Your task to perform on an android device: Open Amazon Image 0: 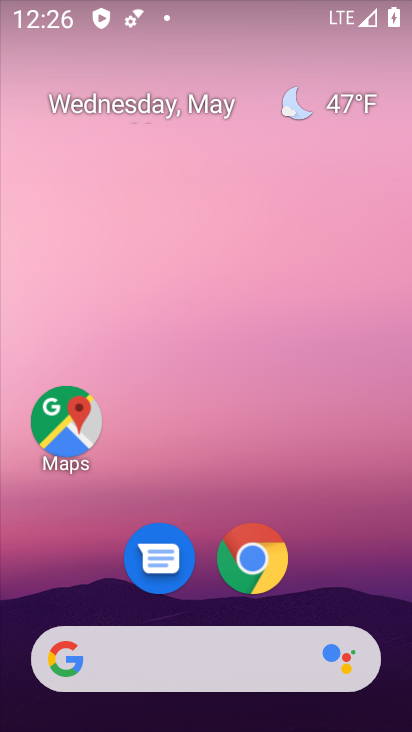
Step 0: click (259, 553)
Your task to perform on an android device: Open Amazon Image 1: 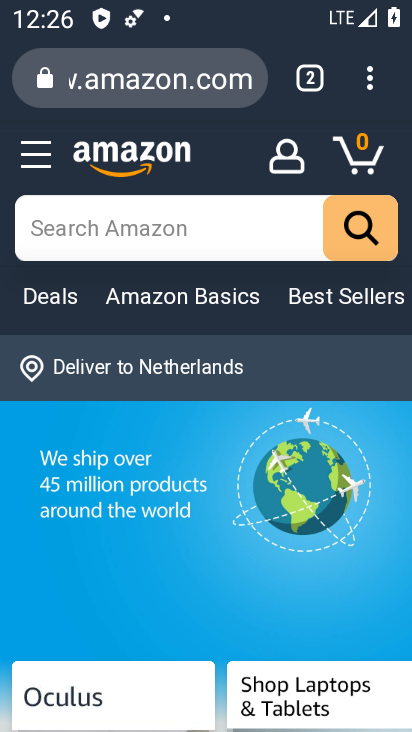
Step 1: task complete